Your task to perform on an android device: Show me popular videos on Youtube Image 0: 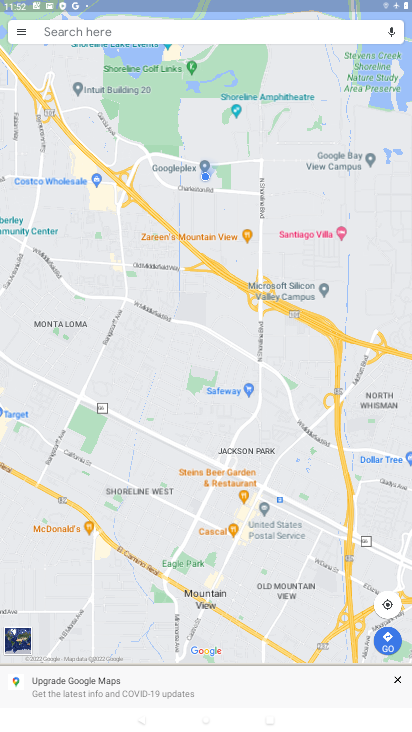
Step 0: press home button
Your task to perform on an android device: Show me popular videos on Youtube Image 1: 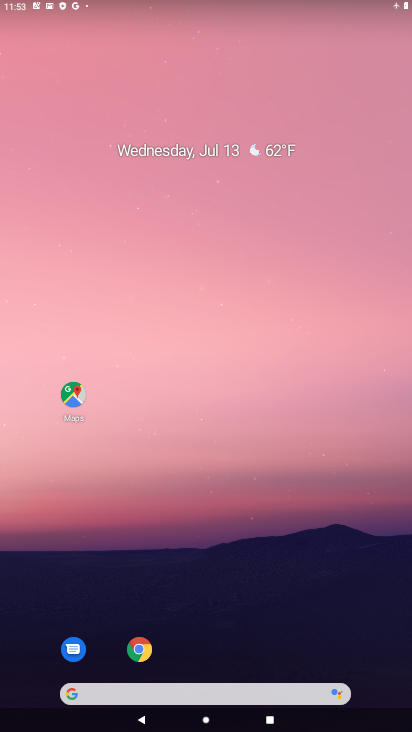
Step 1: drag from (379, 572) to (213, 11)
Your task to perform on an android device: Show me popular videos on Youtube Image 2: 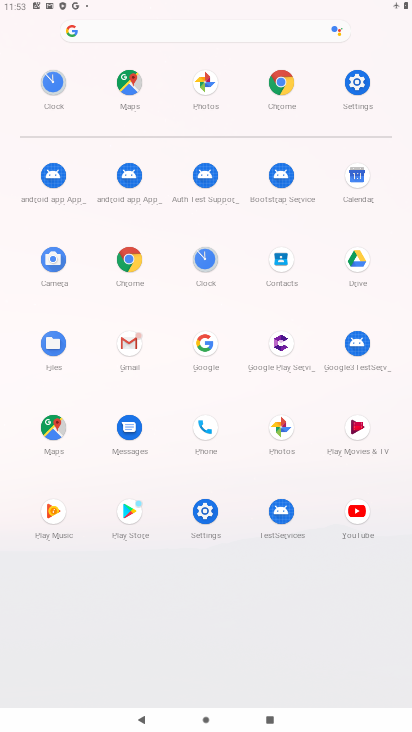
Step 2: click (348, 520)
Your task to perform on an android device: Show me popular videos on Youtube Image 3: 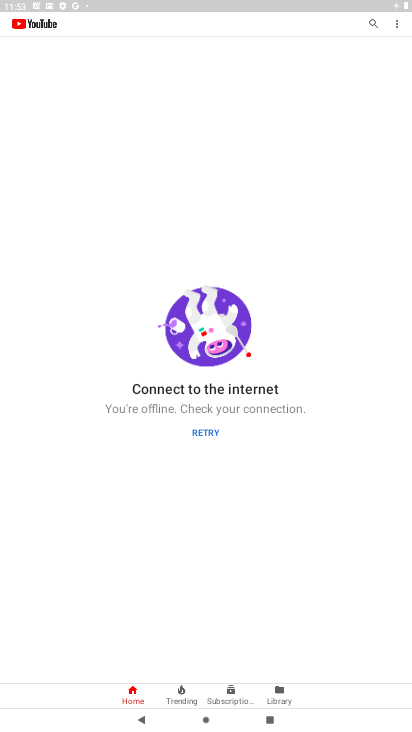
Step 3: task complete